Your task to perform on an android device: toggle javascript in the chrome app Image 0: 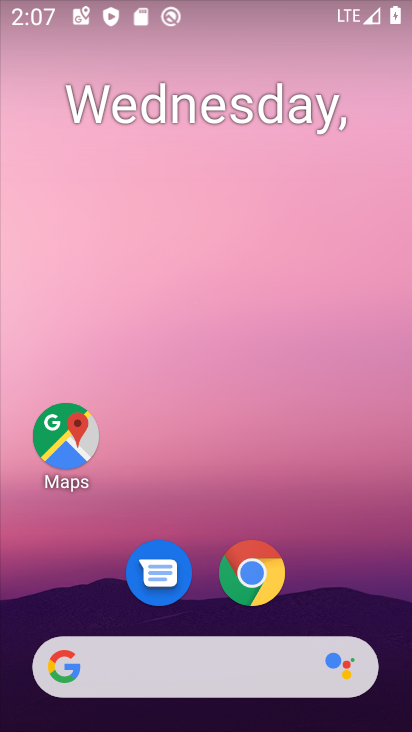
Step 0: drag from (209, 593) to (179, 89)
Your task to perform on an android device: toggle javascript in the chrome app Image 1: 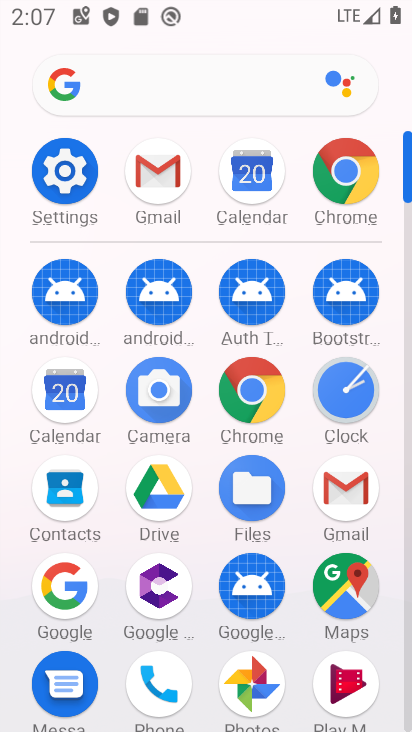
Step 1: click (348, 174)
Your task to perform on an android device: toggle javascript in the chrome app Image 2: 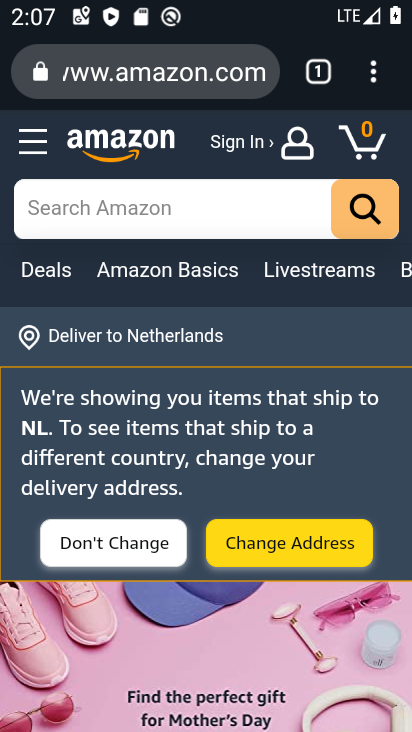
Step 2: click (370, 72)
Your task to perform on an android device: toggle javascript in the chrome app Image 3: 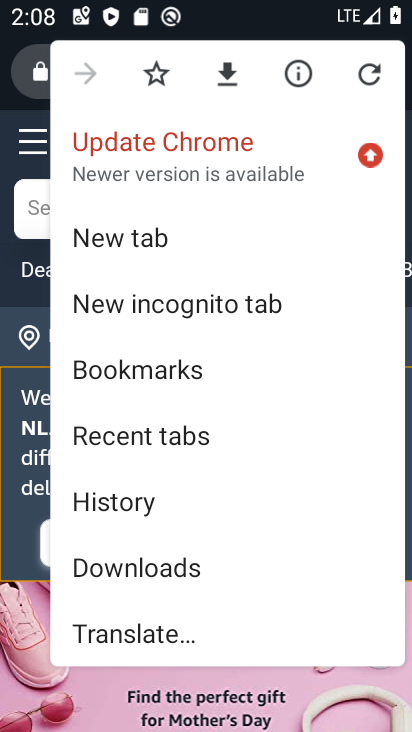
Step 3: drag from (252, 438) to (264, 174)
Your task to perform on an android device: toggle javascript in the chrome app Image 4: 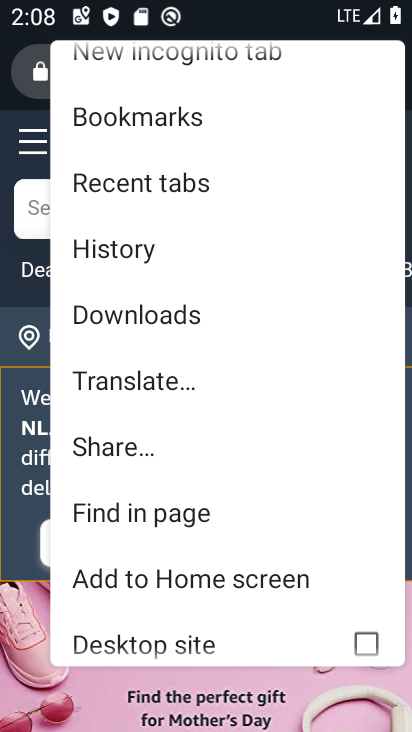
Step 4: drag from (206, 568) to (284, 226)
Your task to perform on an android device: toggle javascript in the chrome app Image 5: 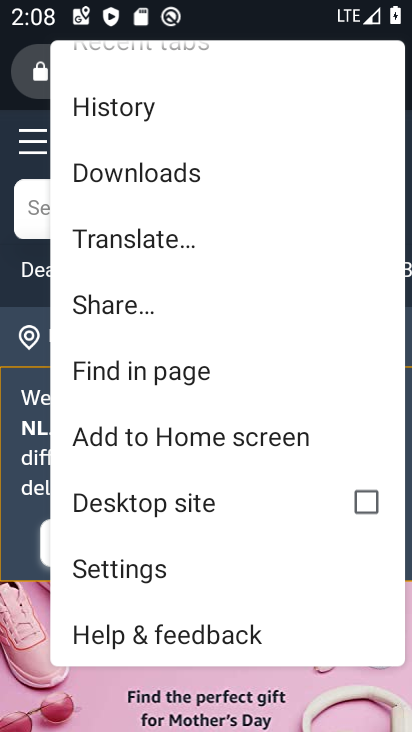
Step 5: click (162, 571)
Your task to perform on an android device: toggle javascript in the chrome app Image 6: 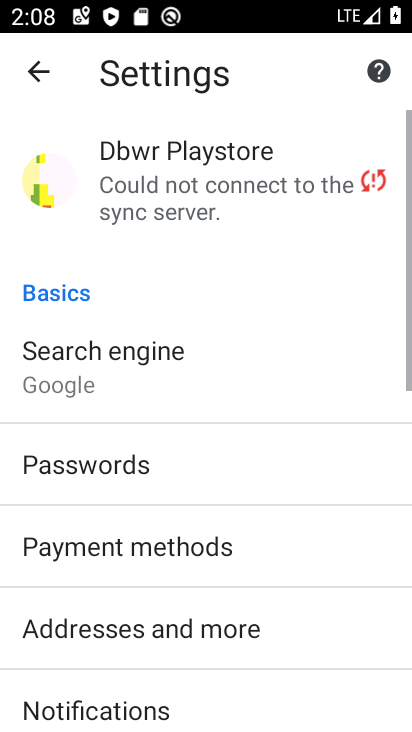
Step 6: drag from (198, 565) to (201, 149)
Your task to perform on an android device: toggle javascript in the chrome app Image 7: 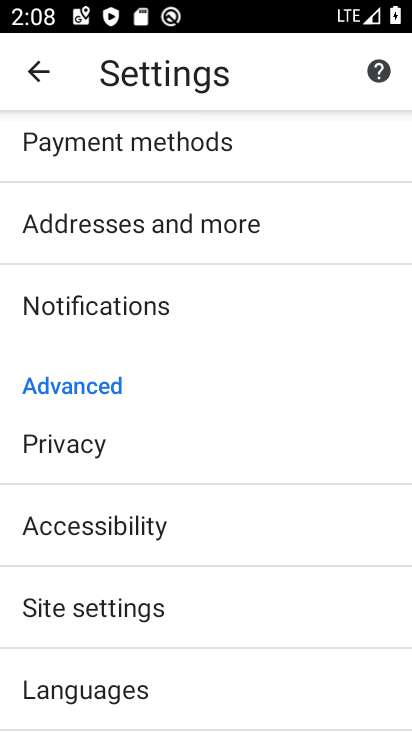
Step 7: drag from (163, 592) to (180, 285)
Your task to perform on an android device: toggle javascript in the chrome app Image 8: 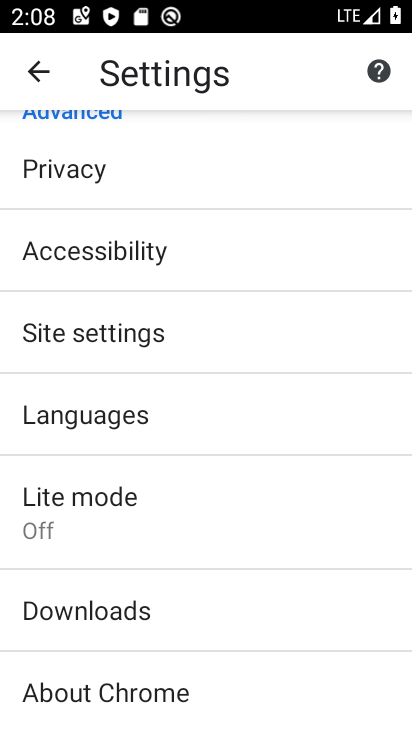
Step 8: click (108, 344)
Your task to perform on an android device: toggle javascript in the chrome app Image 9: 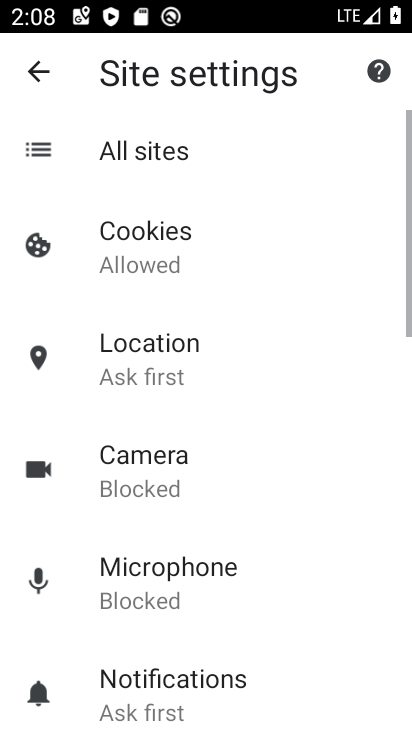
Step 9: drag from (238, 566) to (226, 200)
Your task to perform on an android device: toggle javascript in the chrome app Image 10: 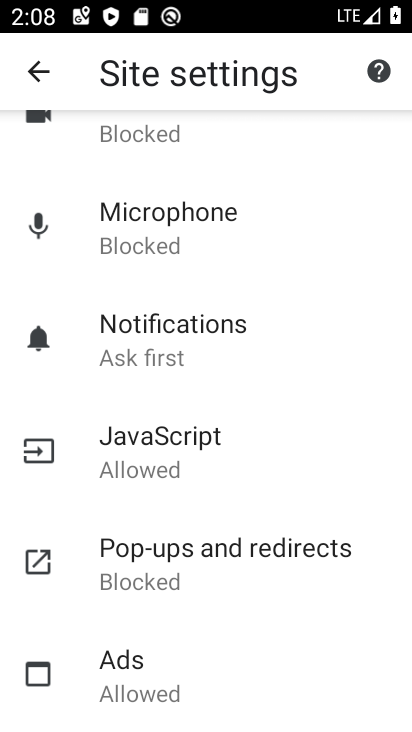
Step 10: click (162, 452)
Your task to perform on an android device: toggle javascript in the chrome app Image 11: 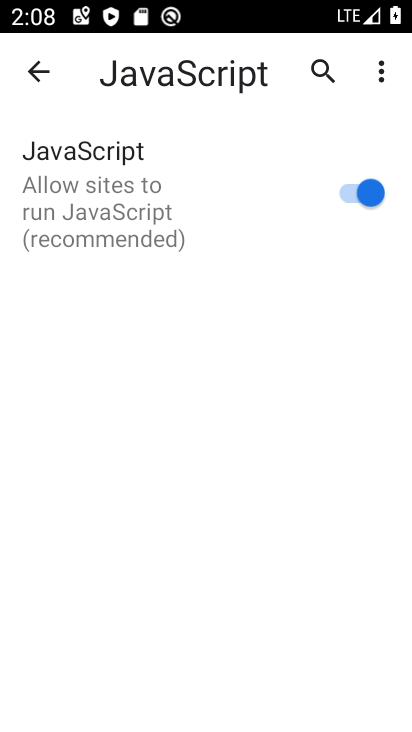
Step 11: click (364, 191)
Your task to perform on an android device: toggle javascript in the chrome app Image 12: 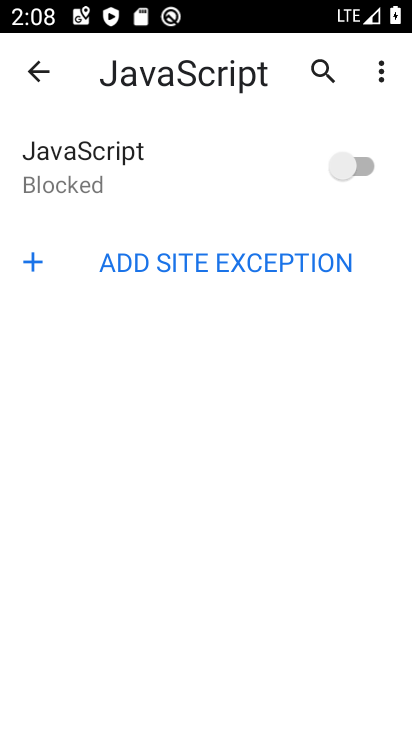
Step 12: task complete